Your task to perform on an android device: snooze an email in the gmail app Image 0: 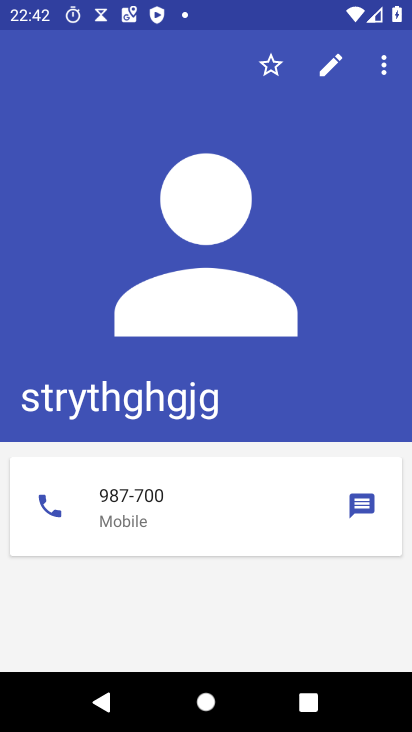
Step 0: press home button
Your task to perform on an android device: snooze an email in the gmail app Image 1: 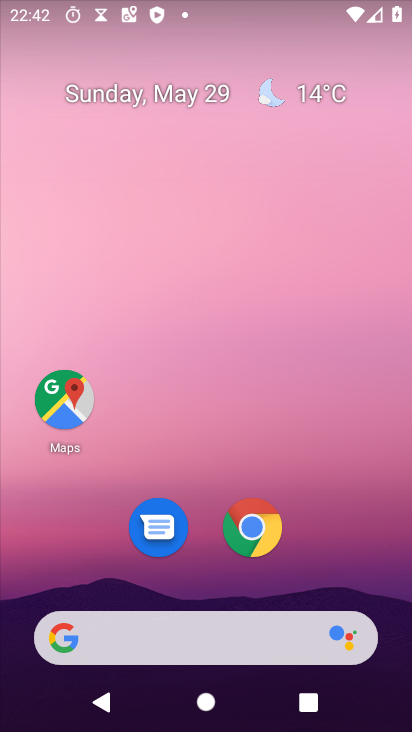
Step 1: drag from (190, 547) to (338, 124)
Your task to perform on an android device: snooze an email in the gmail app Image 2: 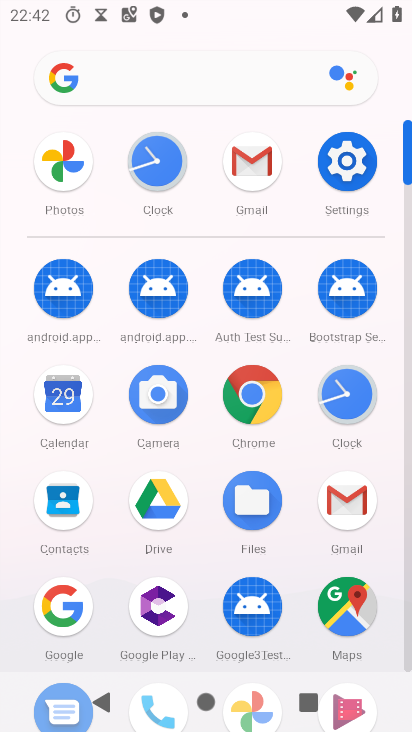
Step 2: click (254, 175)
Your task to perform on an android device: snooze an email in the gmail app Image 3: 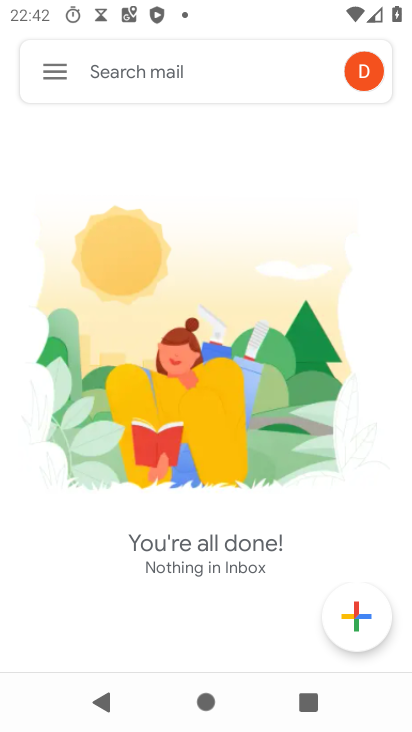
Step 3: task complete